Your task to perform on an android device: Find coffee shops on Maps Image 0: 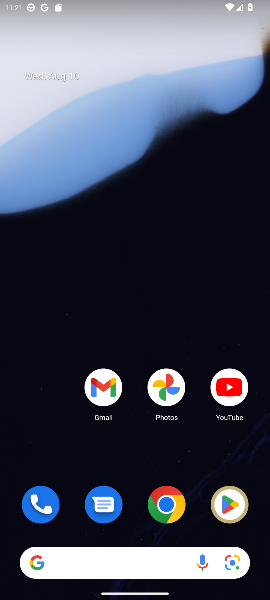
Step 0: drag from (52, 437) to (221, 8)
Your task to perform on an android device: Find coffee shops on Maps Image 1: 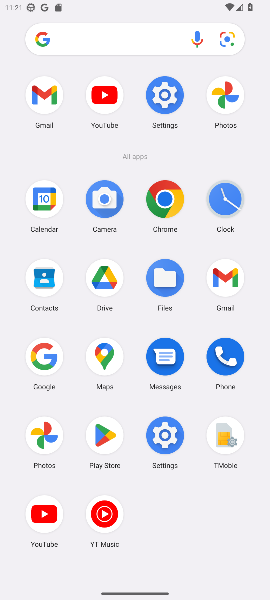
Step 1: click (102, 366)
Your task to perform on an android device: Find coffee shops on Maps Image 2: 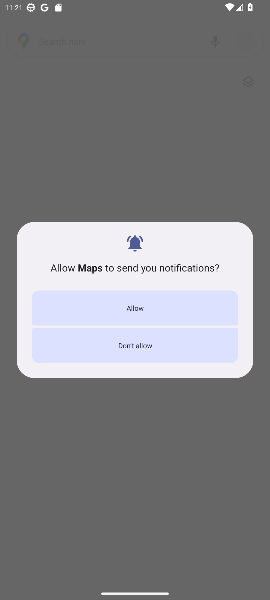
Step 2: click (143, 307)
Your task to perform on an android device: Find coffee shops on Maps Image 3: 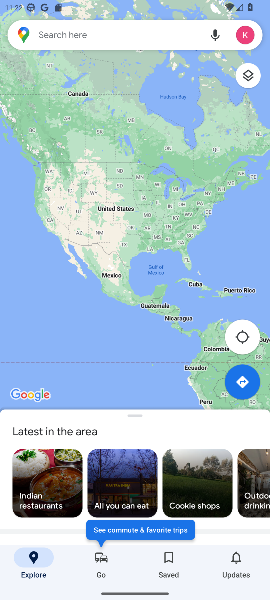
Step 3: click (49, 37)
Your task to perform on an android device: Find coffee shops on Maps Image 4: 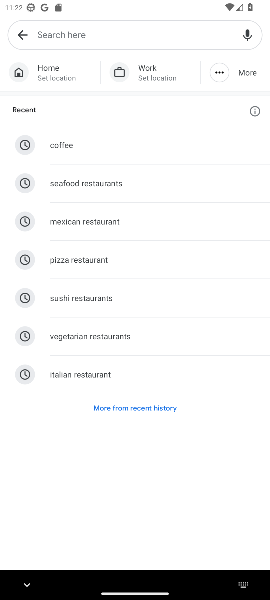
Step 4: type "coffee shops"
Your task to perform on an android device: Find coffee shops on Maps Image 5: 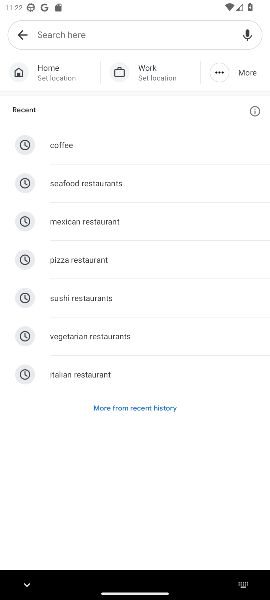
Step 5: click (105, 37)
Your task to perform on an android device: Find coffee shops on Maps Image 6: 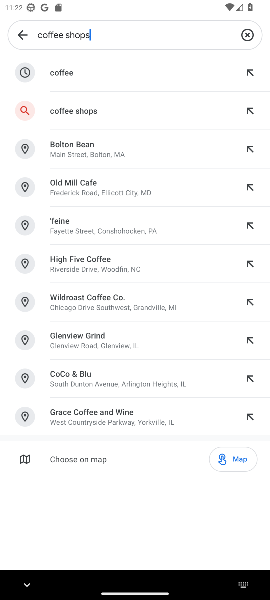
Step 6: press enter
Your task to perform on an android device: Find coffee shops on Maps Image 7: 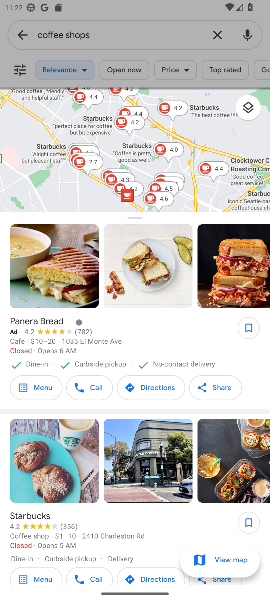
Step 7: task complete